Your task to perform on an android device: delete the emails in spam in the gmail app Image 0: 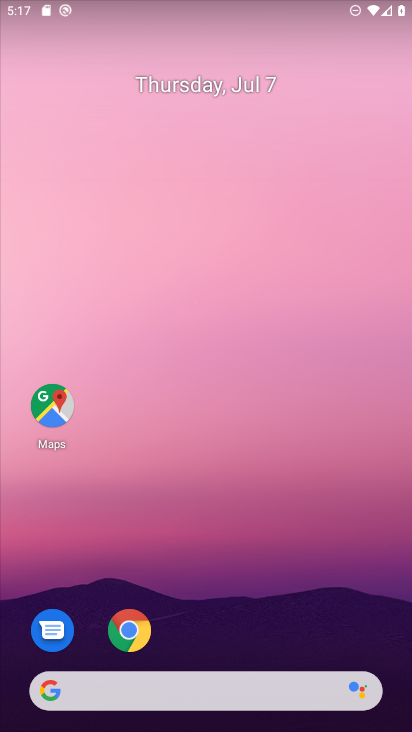
Step 0: press home button
Your task to perform on an android device: delete the emails in spam in the gmail app Image 1: 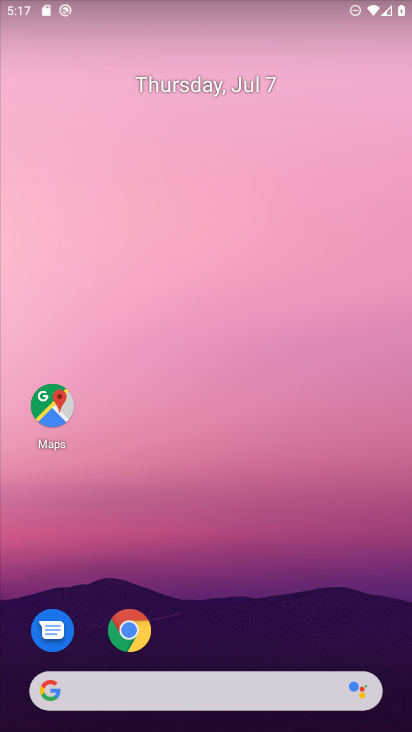
Step 1: drag from (257, 634) to (254, 143)
Your task to perform on an android device: delete the emails in spam in the gmail app Image 2: 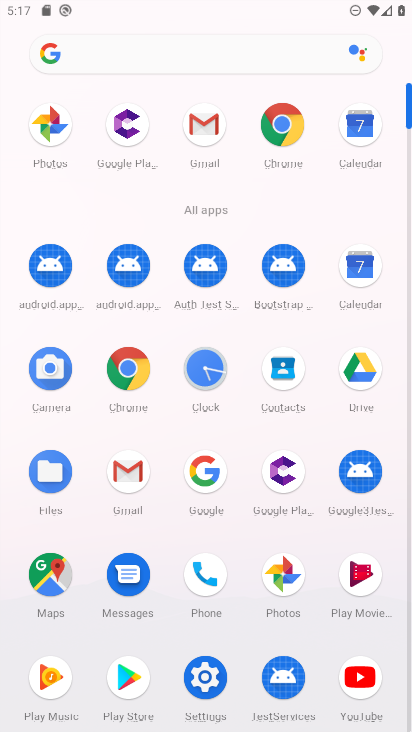
Step 2: click (205, 138)
Your task to perform on an android device: delete the emails in spam in the gmail app Image 3: 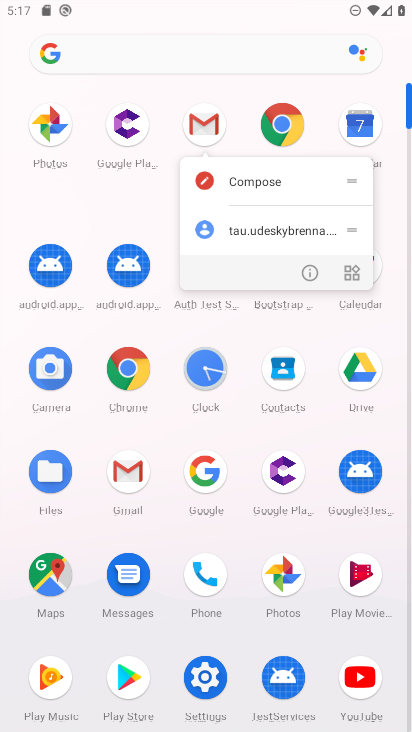
Step 3: click (205, 129)
Your task to perform on an android device: delete the emails in spam in the gmail app Image 4: 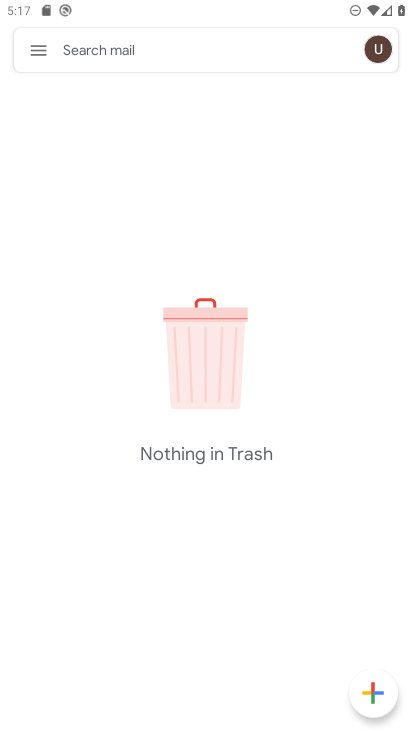
Step 4: click (33, 52)
Your task to perform on an android device: delete the emails in spam in the gmail app Image 5: 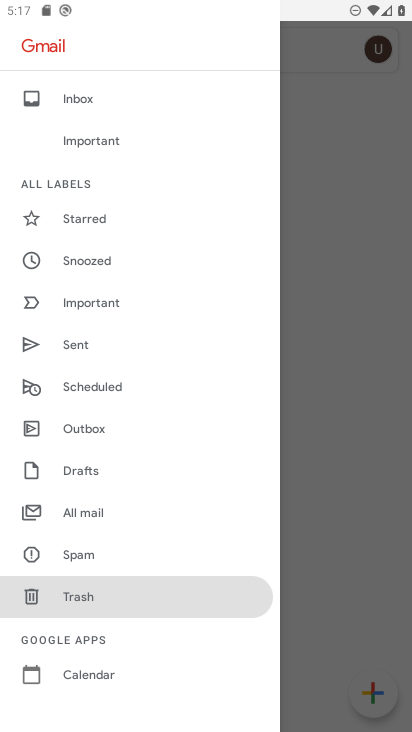
Step 5: click (78, 554)
Your task to perform on an android device: delete the emails in spam in the gmail app Image 6: 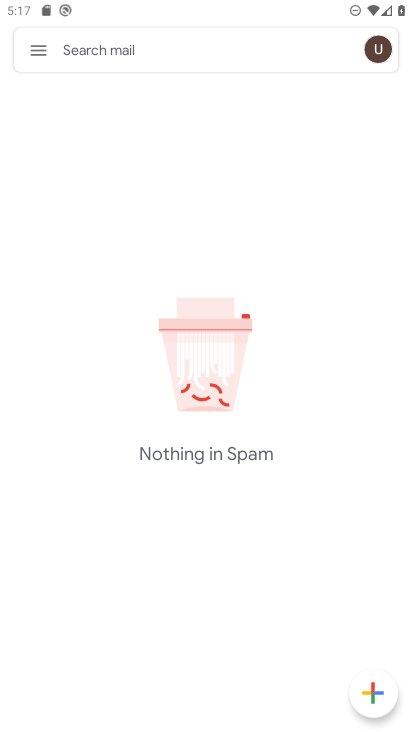
Step 6: task complete